Your task to perform on an android device: Open Wikipedia Image 0: 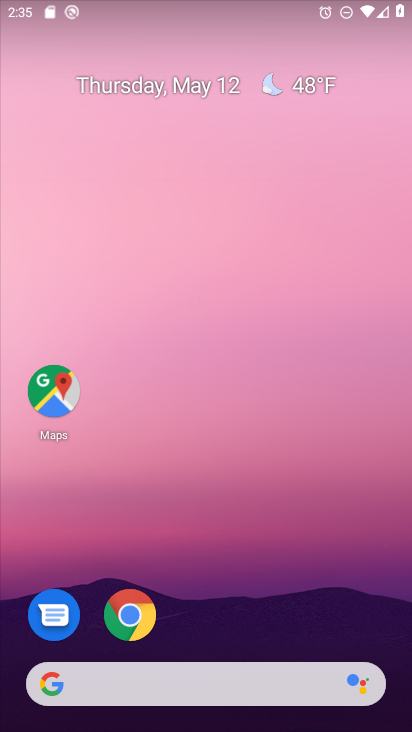
Step 0: drag from (241, 658) to (251, 12)
Your task to perform on an android device: Open Wikipedia Image 1: 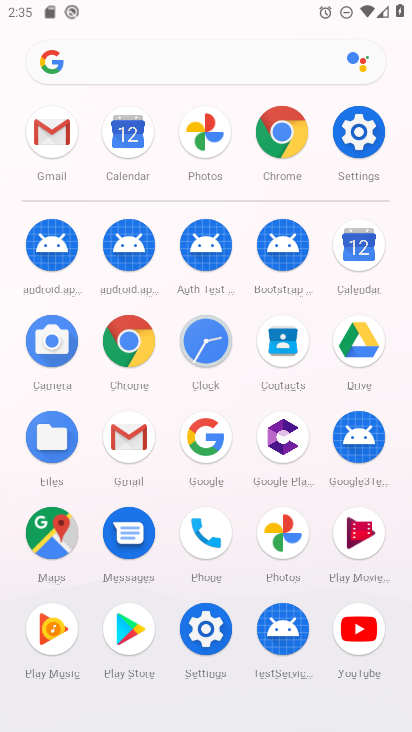
Step 1: click (131, 353)
Your task to perform on an android device: Open Wikipedia Image 2: 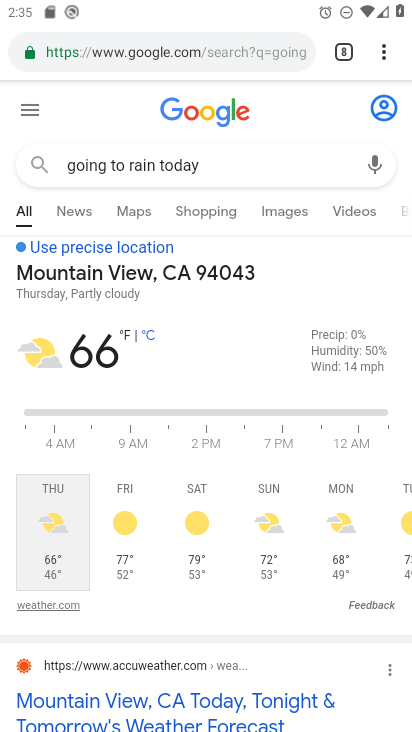
Step 2: click (265, 57)
Your task to perform on an android device: Open Wikipedia Image 3: 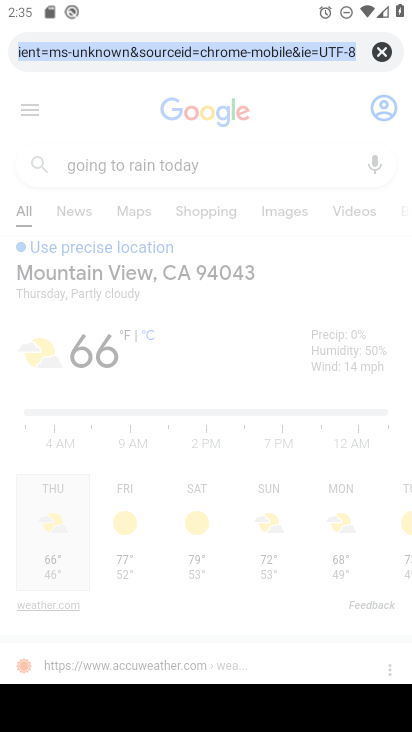
Step 3: click (377, 54)
Your task to perform on an android device: Open Wikipedia Image 4: 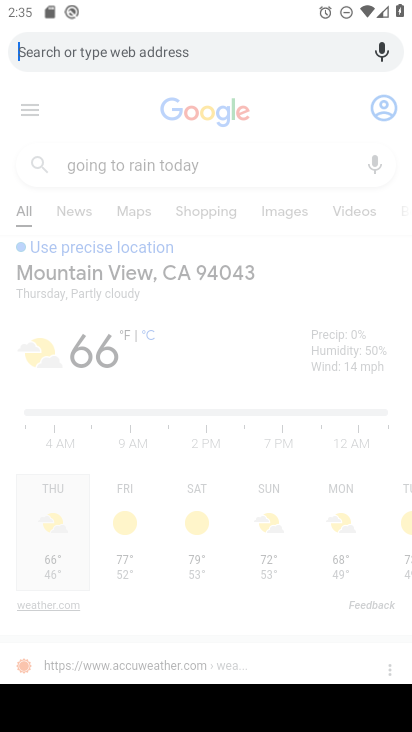
Step 4: type "wikipedia"
Your task to perform on an android device: Open Wikipedia Image 5: 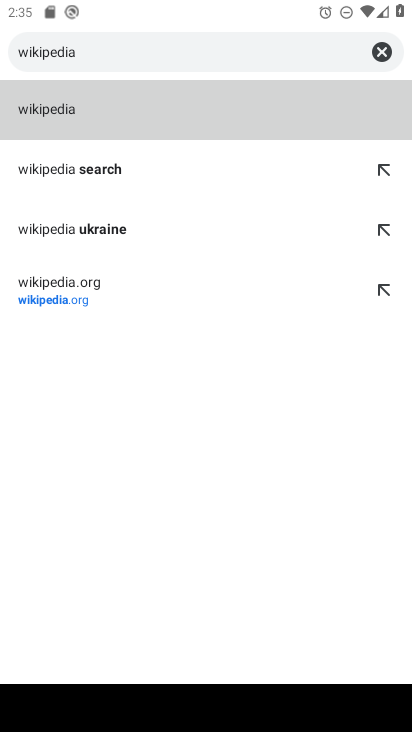
Step 5: click (241, 124)
Your task to perform on an android device: Open Wikipedia Image 6: 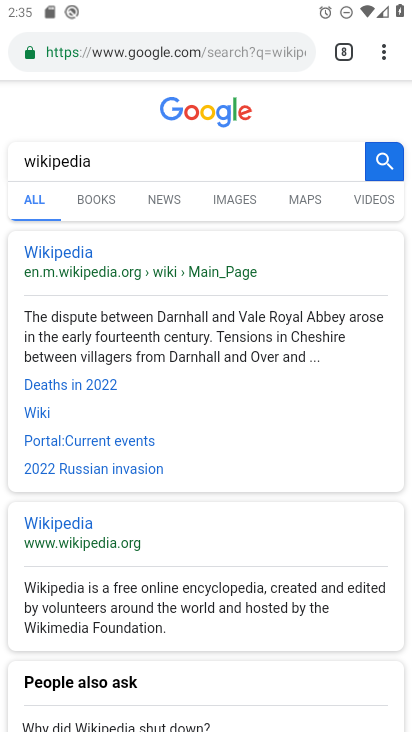
Step 6: task complete